Your task to perform on an android device: snooze an email in the gmail app Image 0: 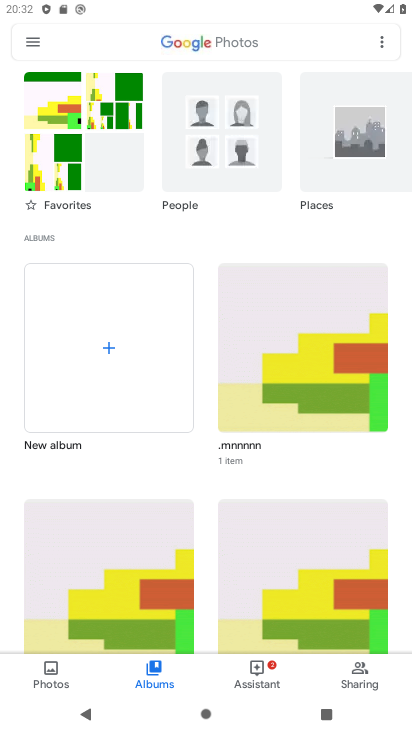
Step 0: press home button
Your task to perform on an android device: snooze an email in the gmail app Image 1: 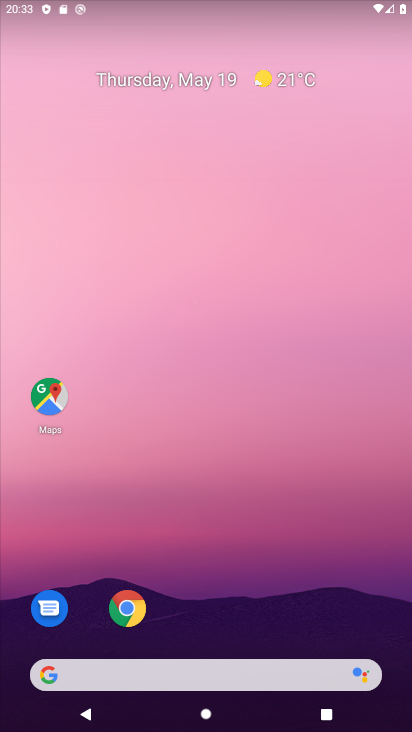
Step 1: drag from (243, 562) to (167, 115)
Your task to perform on an android device: snooze an email in the gmail app Image 2: 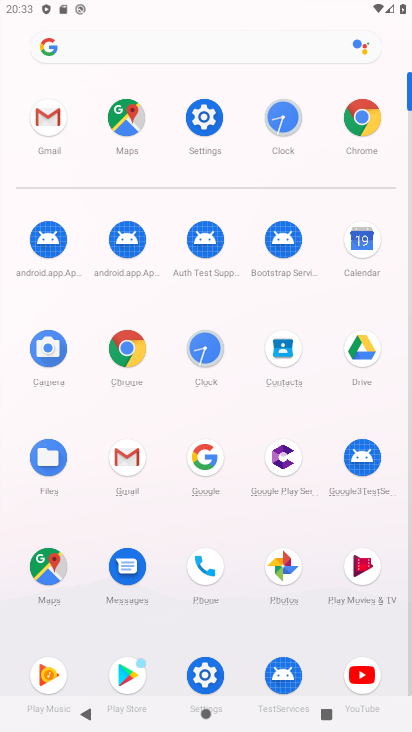
Step 2: click (39, 117)
Your task to perform on an android device: snooze an email in the gmail app Image 3: 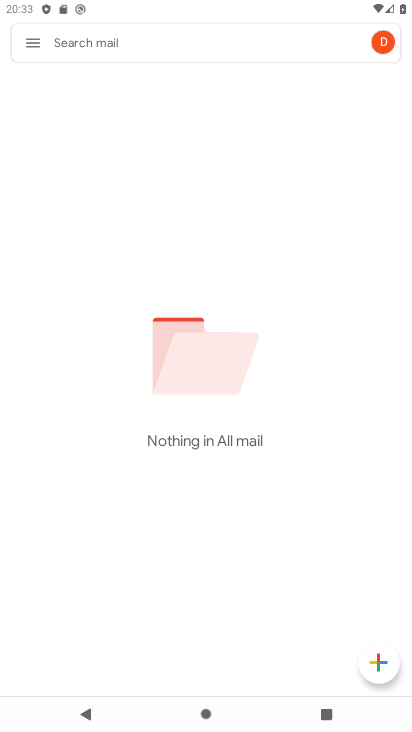
Step 3: click (40, 42)
Your task to perform on an android device: snooze an email in the gmail app Image 4: 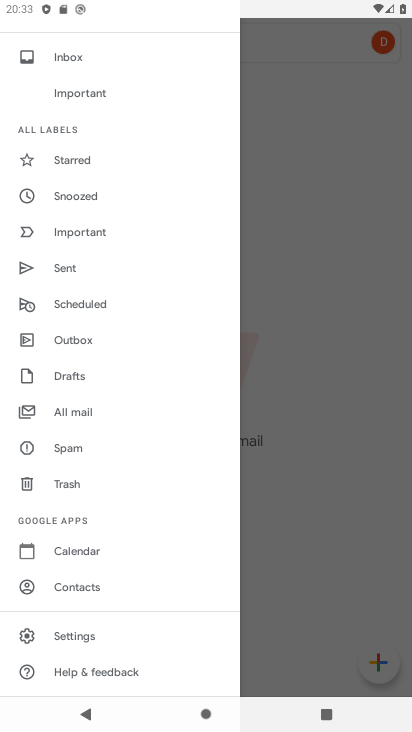
Step 4: click (67, 197)
Your task to perform on an android device: snooze an email in the gmail app Image 5: 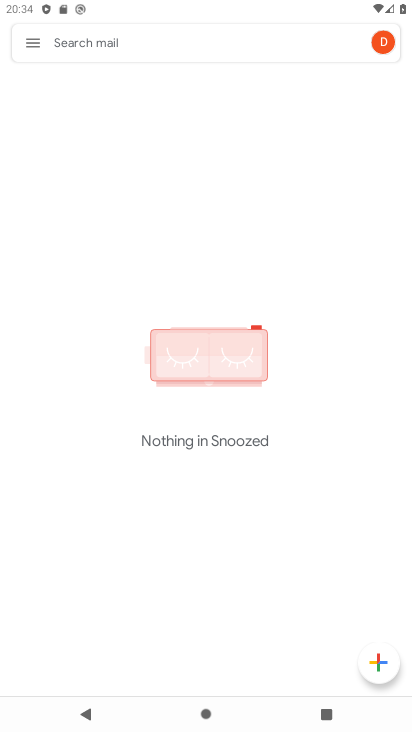
Step 5: task complete